Your task to perform on an android device: turn on the 12-hour format for clock Image 0: 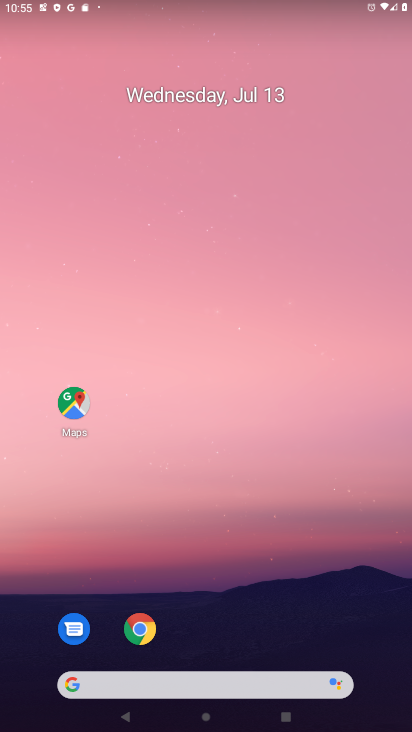
Step 0: drag from (278, 636) to (239, 149)
Your task to perform on an android device: turn on the 12-hour format for clock Image 1: 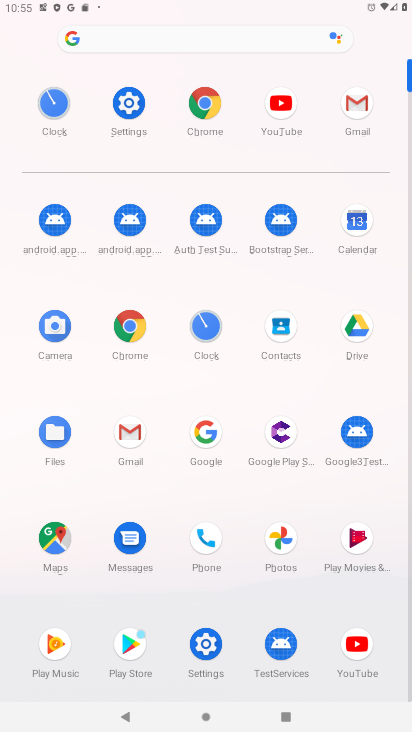
Step 1: click (49, 125)
Your task to perform on an android device: turn on the 12-hour format for clock Image 2: 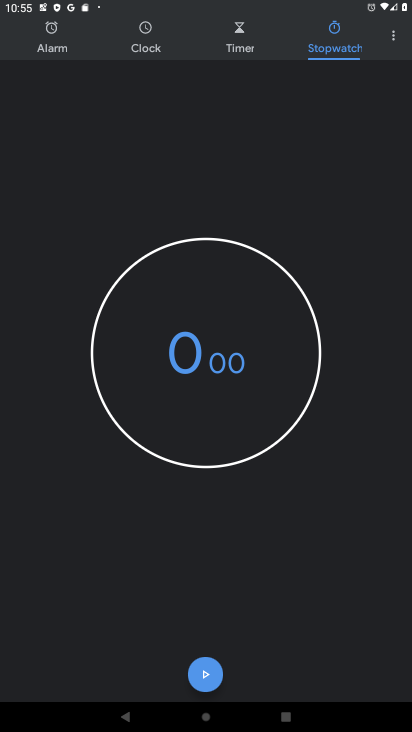
Step 2: click (393, 45)
Your task to perform on an android device: turn on the 12-hour format for clock Image 3: 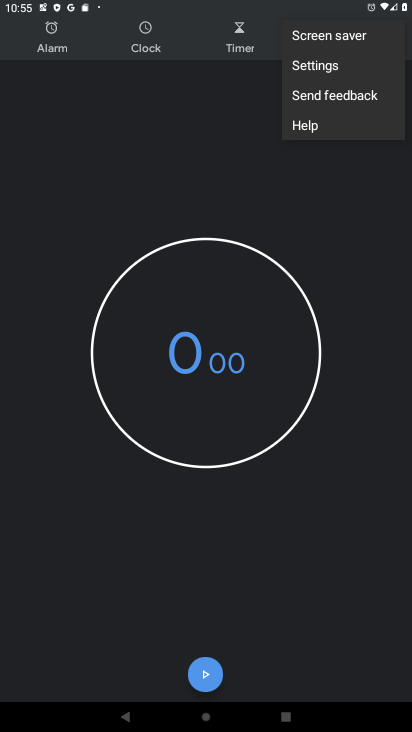
Step 3: click (341, 64)
Your task to perform on an android device: turn on the 12-hour format for clock Image 4: 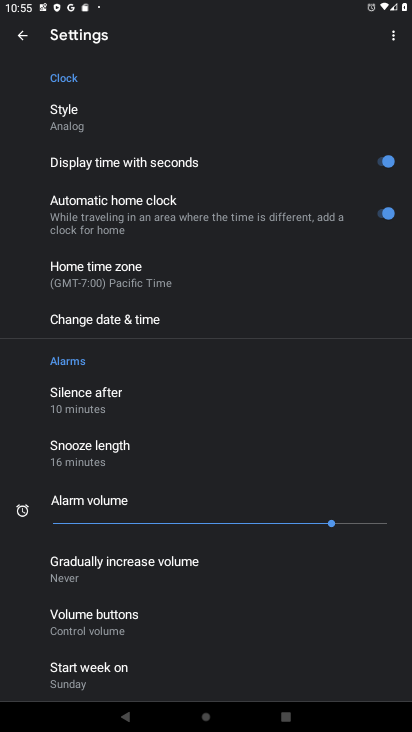
Step 4: click (146, 308)
Your task to perform on an android device: turn on the 12-hour format for clock Image 5: 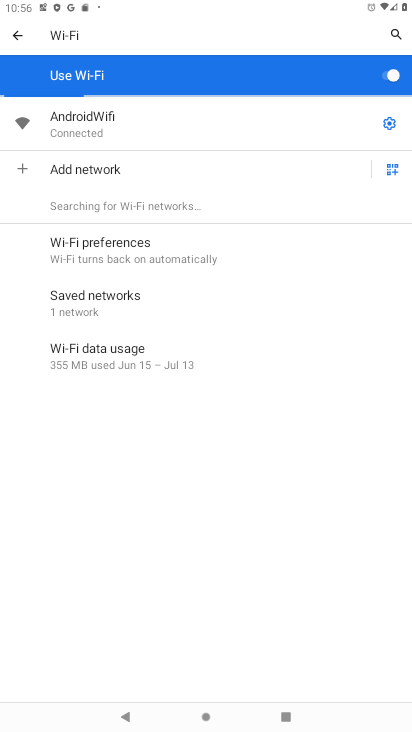
Step 5: task complete